Your task to perform on an android device: turn notification dots off Image 0: 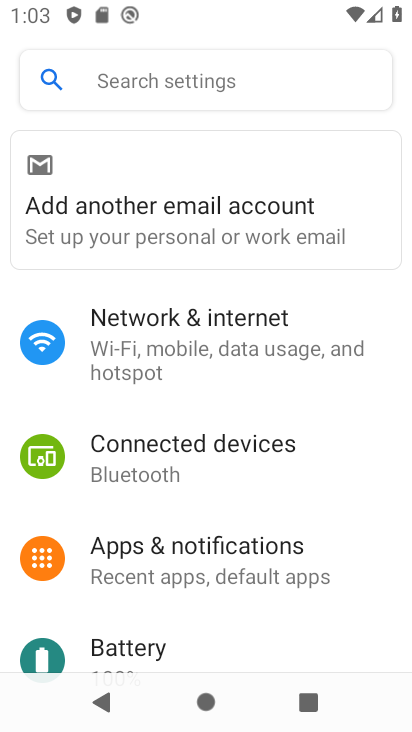
Step 0: drag from (225, 463) to (263, 384)
Your task to perform on an android device: turn notification dots off Image 1: 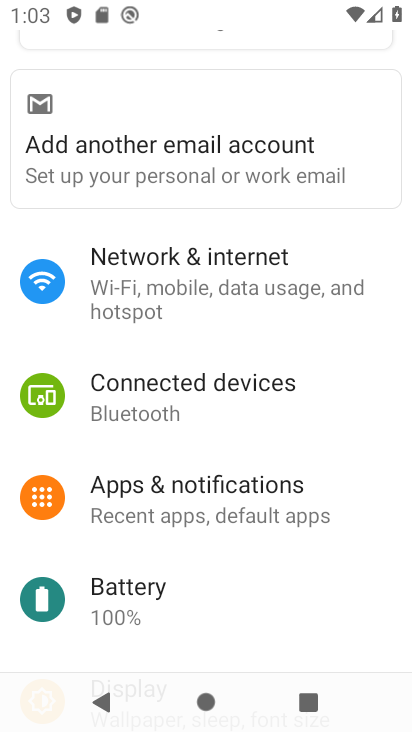
Step 1: click (242, 484)
Your task to perform on an android device: turn notification dots off Image 2: 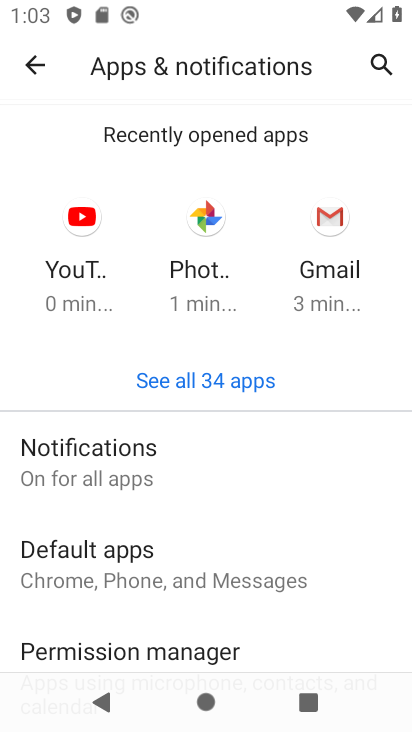
Step 2: click (112, 454)
Your task to perform on an android device: turn notification dots off Image 3: 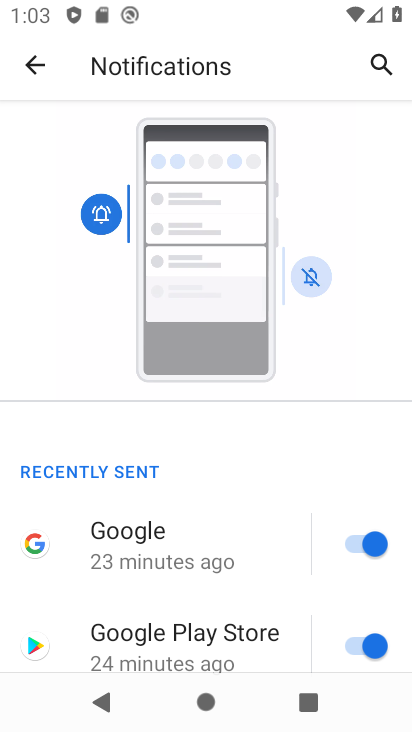
Step 3: drag from (212, 481) to (275, 272)
Your task to perform on an android device: turn notification dots off Image 4: 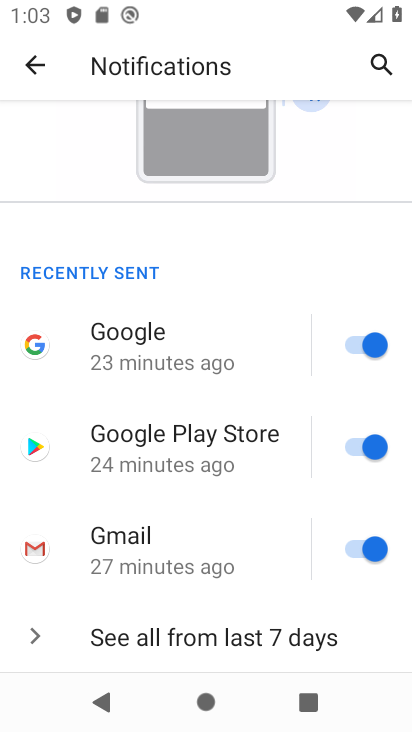
Step 4: drag from (210, 497) to (235, 275)
Your task to perform on an android device: turn notification dots off Image 5: 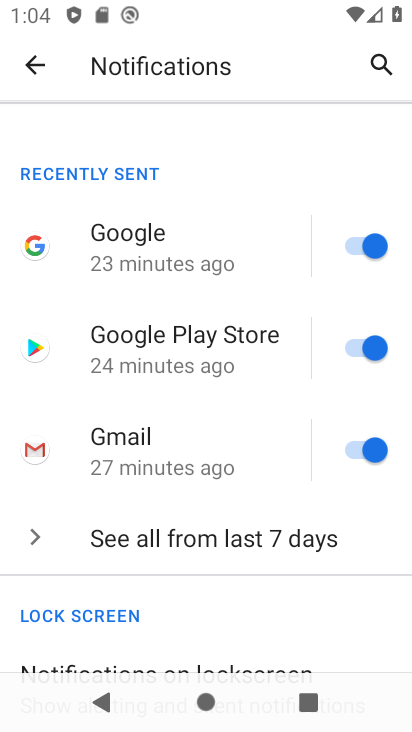
Step 5: drag from (164, 501) to (234, 319)
Your task to perform on an android device: turn notification dots off Image 6: 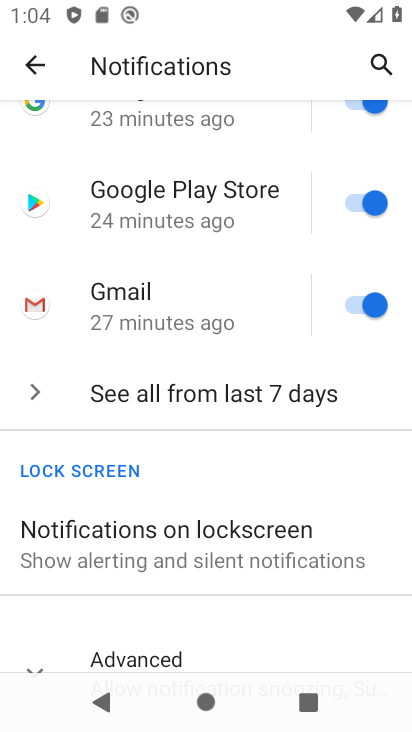
Step 6: drag from (200, 487) to (242, 330)
Your task to perform on an android device: turn notification dots off Image 7: 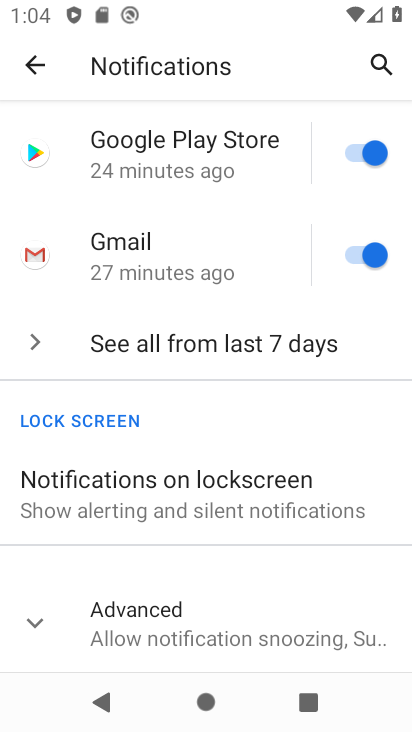
Step 7: click (131, 614)
Your task to perform on an android device: turn notification dots off Image 8: 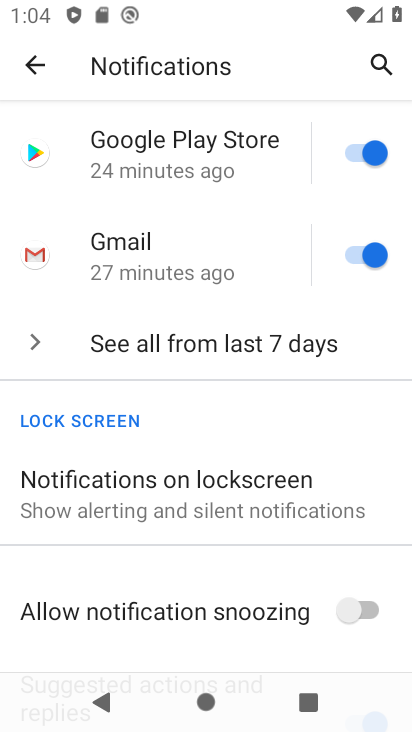
Step 8: drag from (187, 569) to (285, 394)
Your task to perform on an android device: turn notification dots off Image 9: 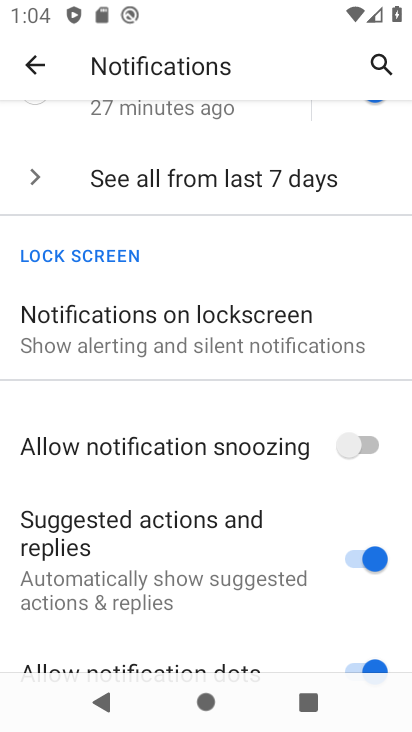
Step 9: drag from (181, 606) to (220, 445)
Your task to perform on an android device: turn notification dots off Image 10: 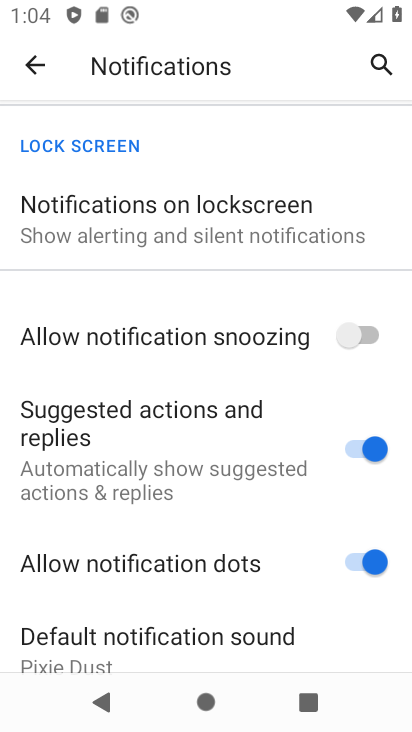
Step 10: click (374, 563)
Your task to perform on an android device: turn notification dots off Image 11: 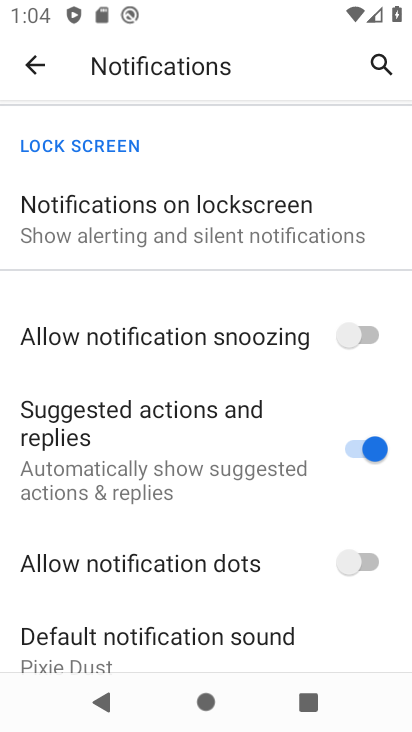
Step 11: task complete